Your task to perform on an android device: Search for vegetarian restaurants on Maps Image 0: 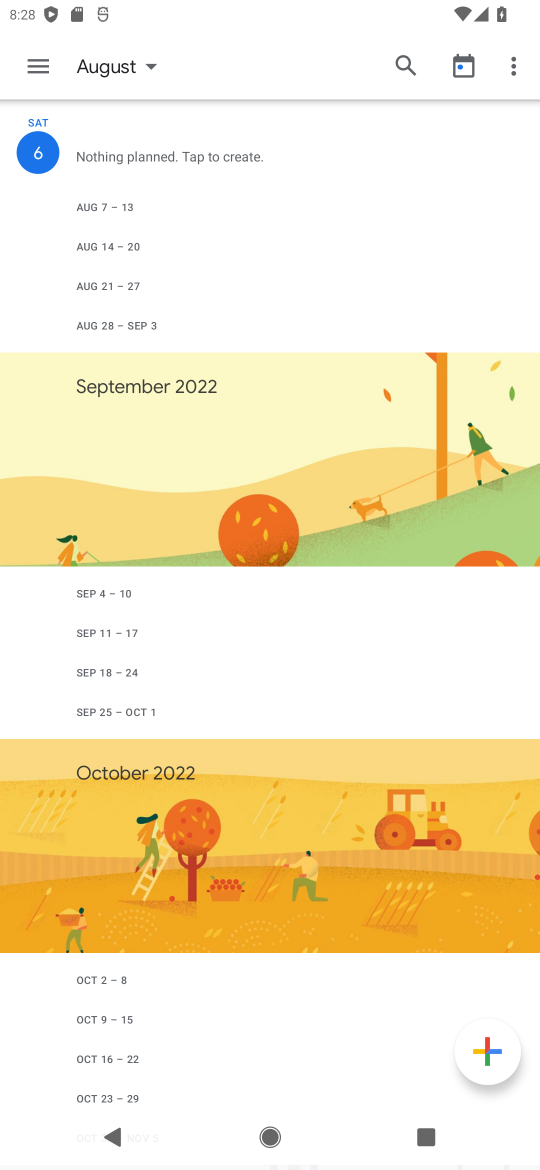
Step 0: press home button
Your task to perform on an android device: Search for vegetarian restaurants on Maps Image 1: 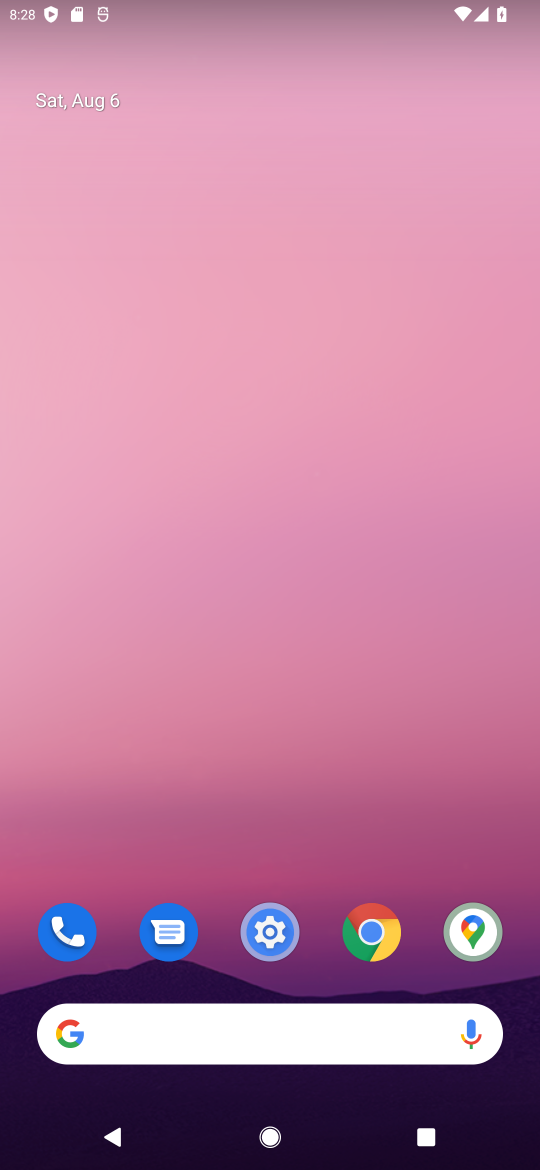
Step 1: click (474, 941)
Your task to perform on an android device: Search for vegetarian restaurants on Maps Image 2: 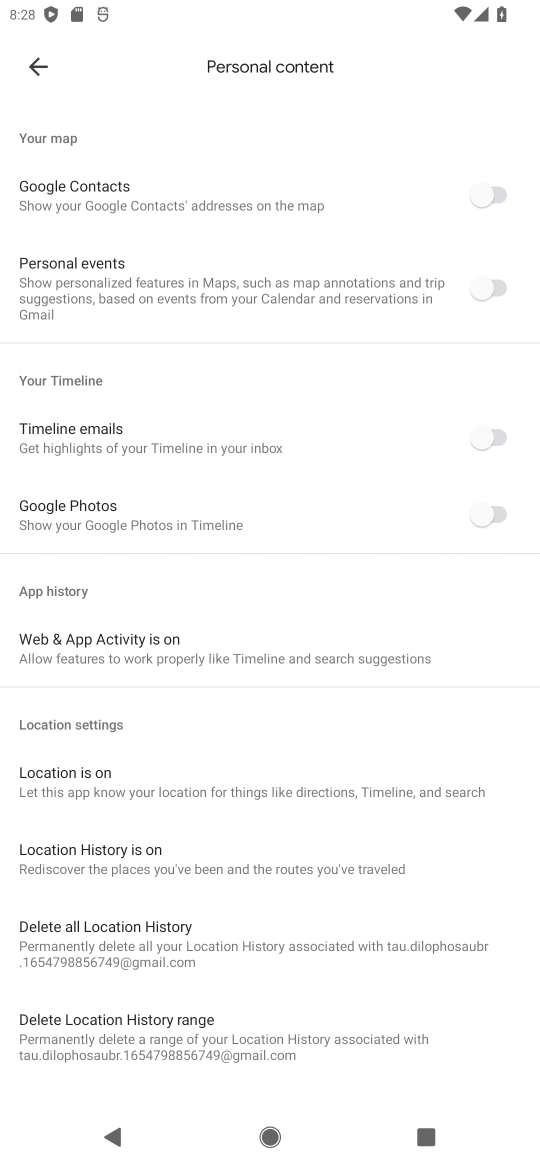
Step 2: press back button
Your task to perform on an android device: Search for vegetarian restaurants on Maps Image 3: 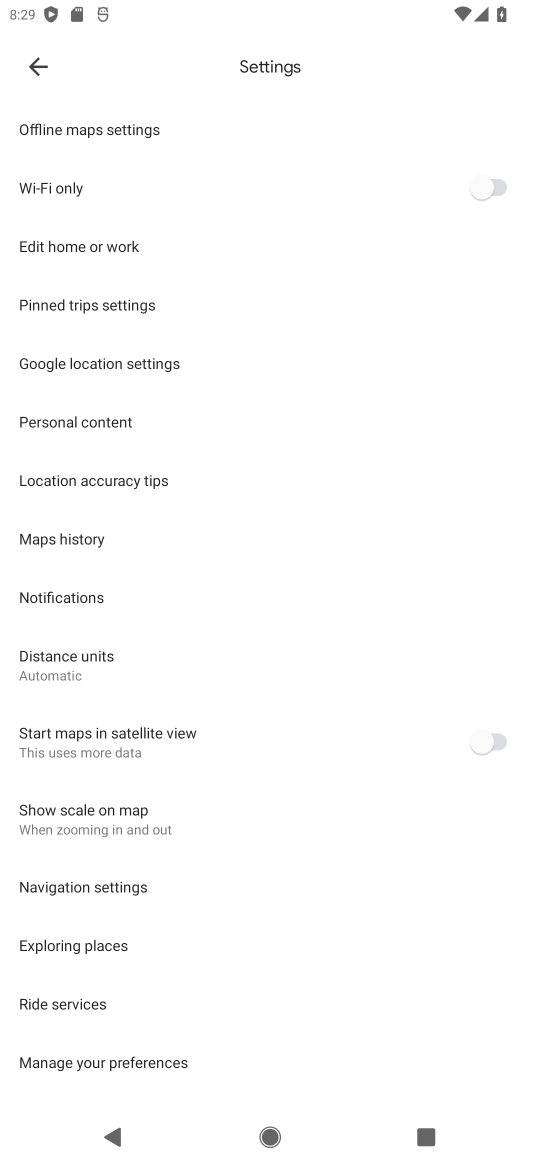
Step 3: press back button
Your task to perform on an android device: Search for vegetarian restaurants on Maps Image 4: 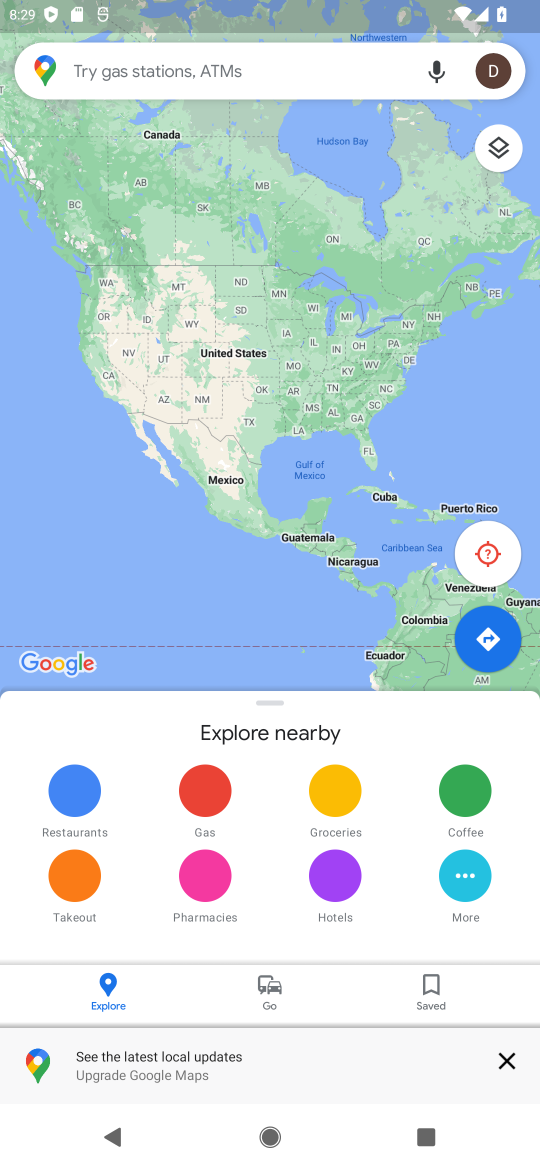
Step 4: click (266, 76)
Your task to perform on an android device: Search for vegetarian restaurants on Maps Image 5: 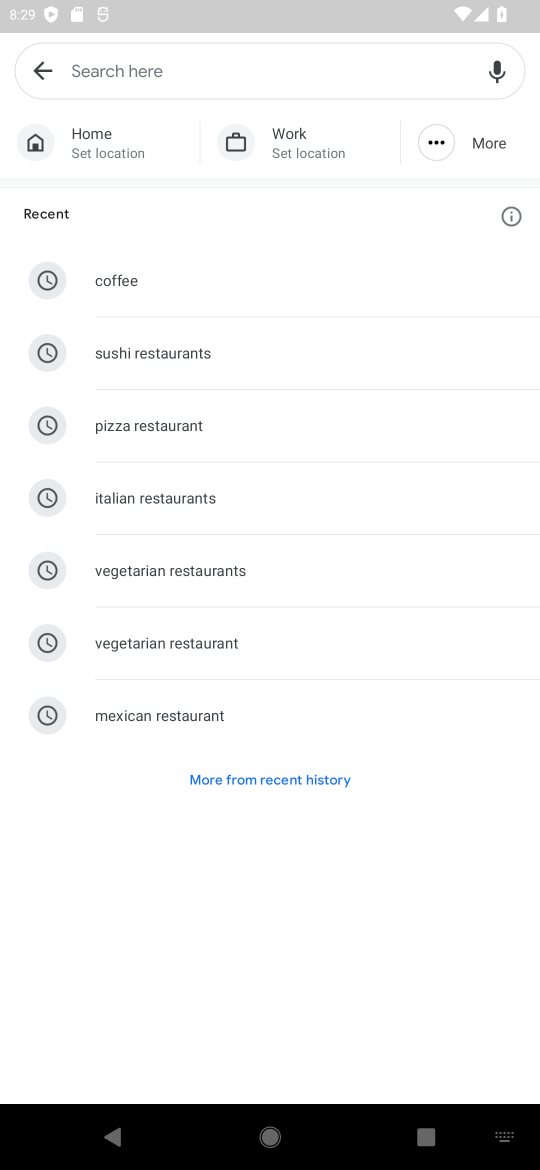
Step 5: type "vegetarian restaurants"
Your task to perform on an android device: Search for vegetarian restaurants on Maps Image 6: 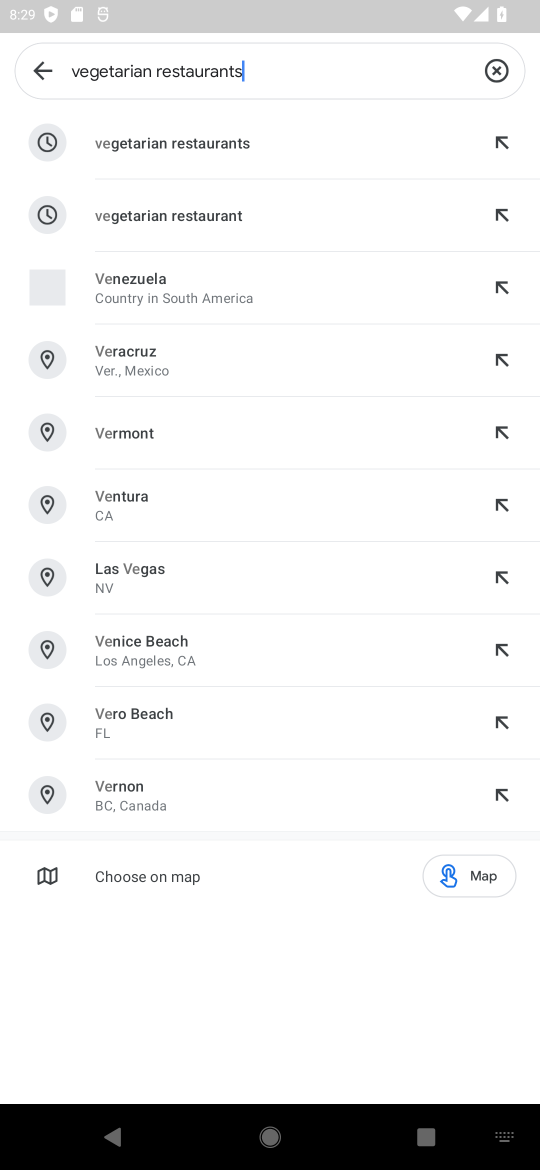
Step 6: click (183, 143)
Your task to perform on an android device: Search for vegetarian restaurants on Maps Image 7: 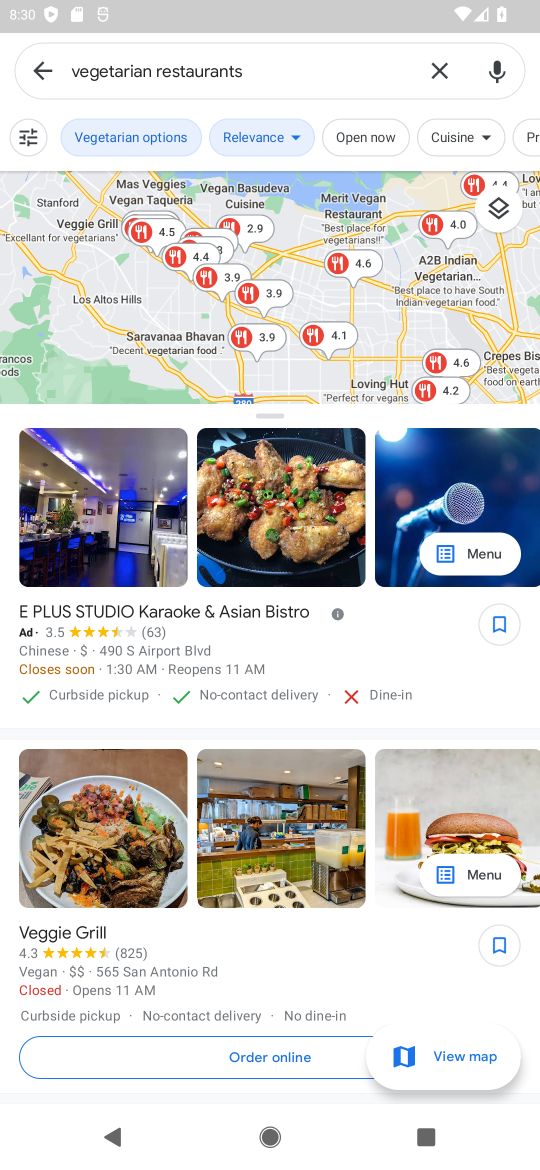
Step 7: task complete